Your task to perform on an android device: see creations saved in the google photos Image 0: 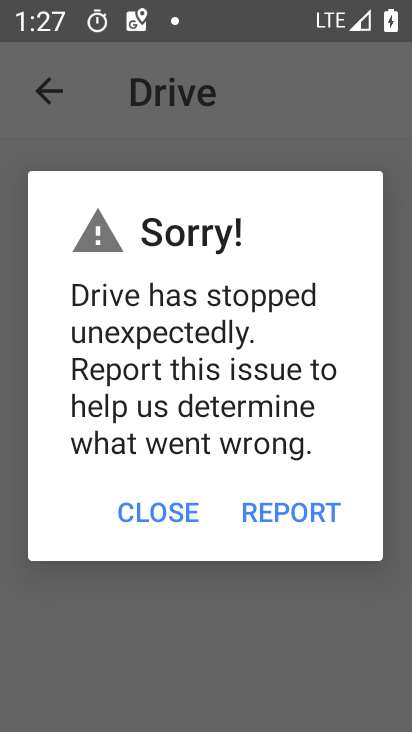
Step 0: press home button
Your task to perform on an android device: see creations saved in the google photos Image 1: 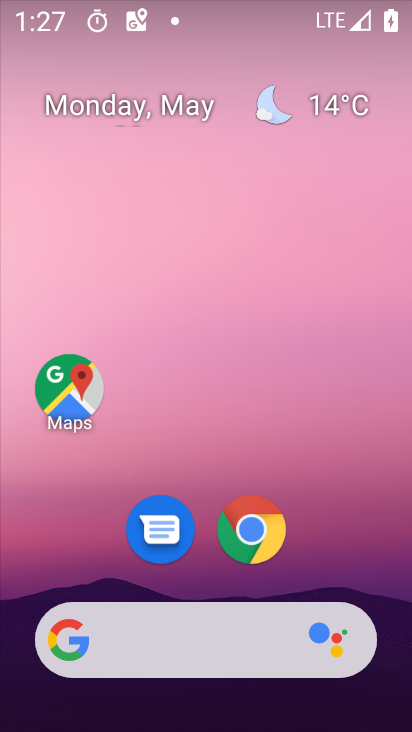
Step 1: drag from (372, 554) to (372, 217)
Your task to perform on an android device: see creations saved in the google photos Image 2: 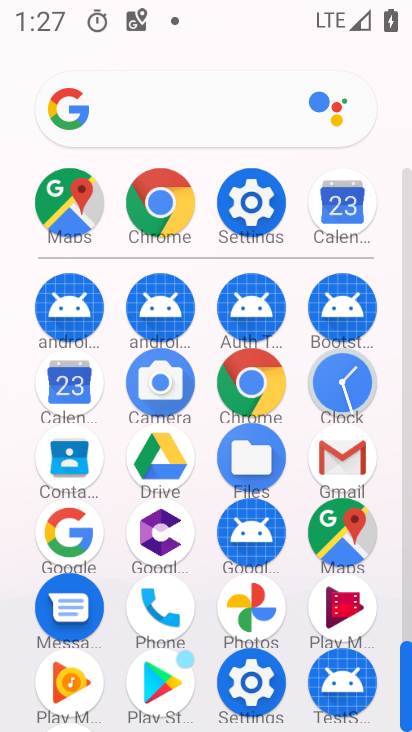
Step 2: click (259, 620)
Your task to perform on an android device: see creations saved in the google photos Image 3: 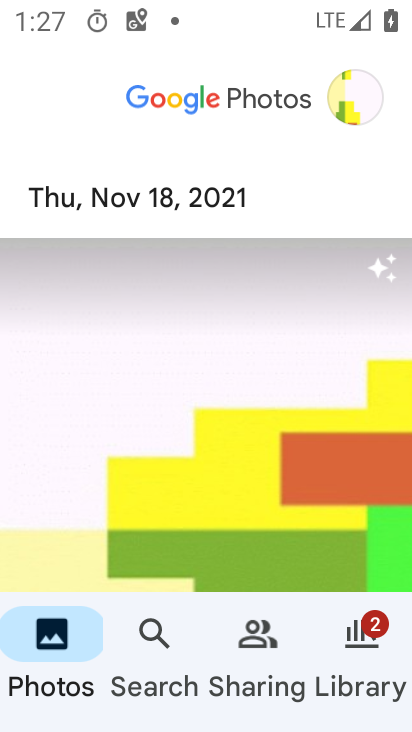
Step 3: click (153, 654)
Your task to perform on an android device: see creations saved in the google photos Image 4: 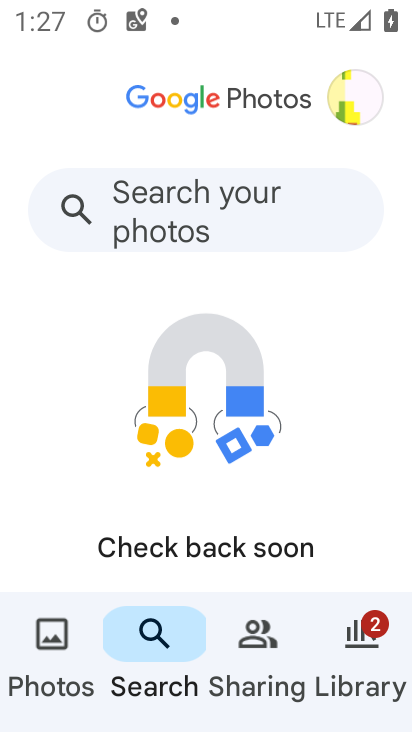
Step 4: drag from (344, 472) to (347, 323)
Your task to perform on an android device: see creations saved in the google photos Image 5: 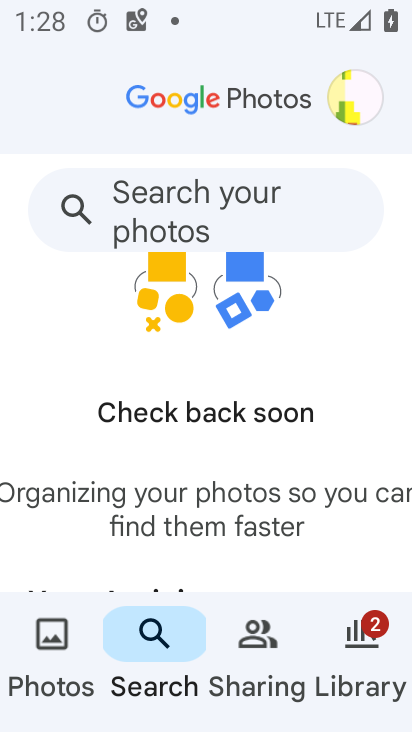
Step 5: drag from (314, 523) to (318, 347)
Your task to perform on an android device: see creations saved in the google photos Image 6: 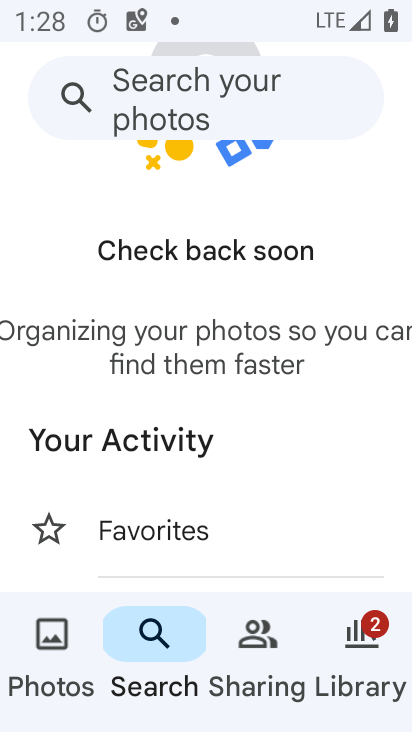
Step 6: drag from (276, 566) to (269, 404)
Your task to perform on an android device: see creations saved in the google photos Image 7: 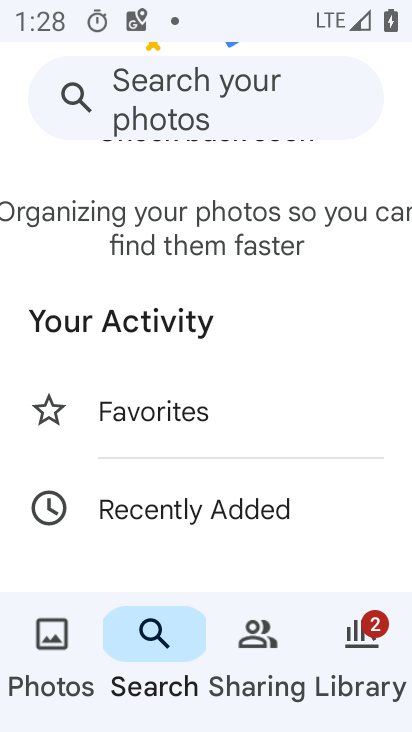
Step 7: drag from (279, 551) to (272, 437)
Your task to perform on an android device: see creations saved in the google photos Image 8: 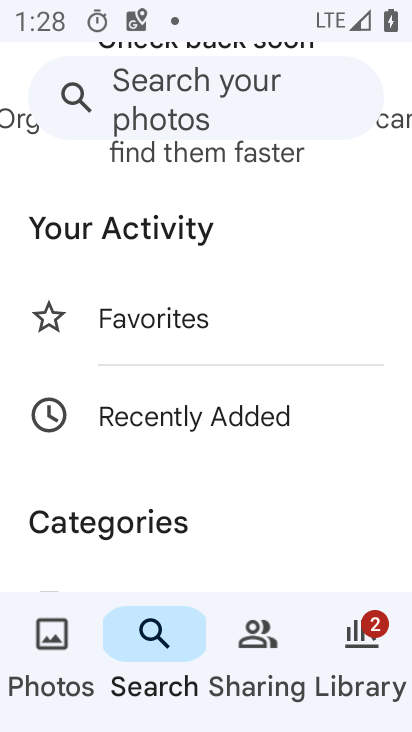
Step 8: drag from (282, 549) to (298, 409)
Your task to perform on an android device: see creations saved in the google photos Image 9: 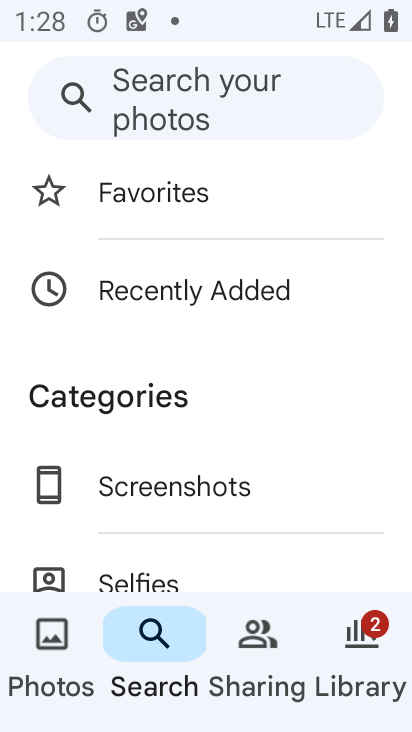
Step 9: drag from (304, 522) to (319, 379)
Your task to perform on an android device: see creations saved in the google photos Image 10: 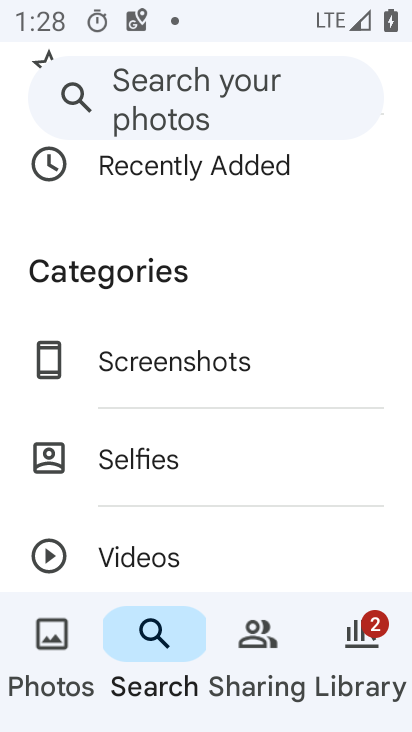
Step 10: drag from (291, 538) to (282, 390)
Your task to perform on an android device: see creations saved in the google photos Image 11: 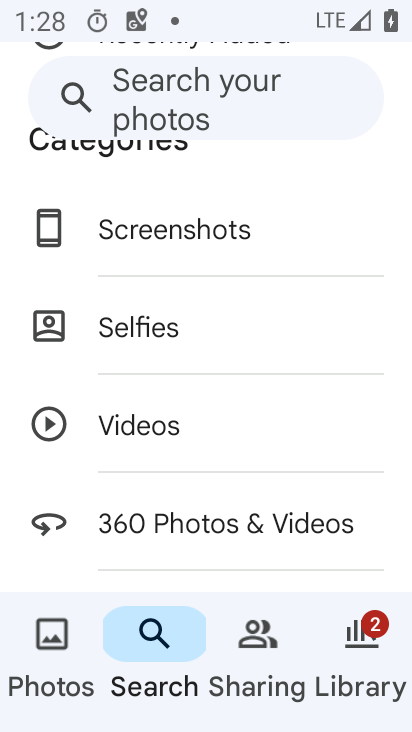
Step 11: drag from (282, 512) to (284, 412)
Your task to perform on an android device: see creations saved in the google photos Image 12: 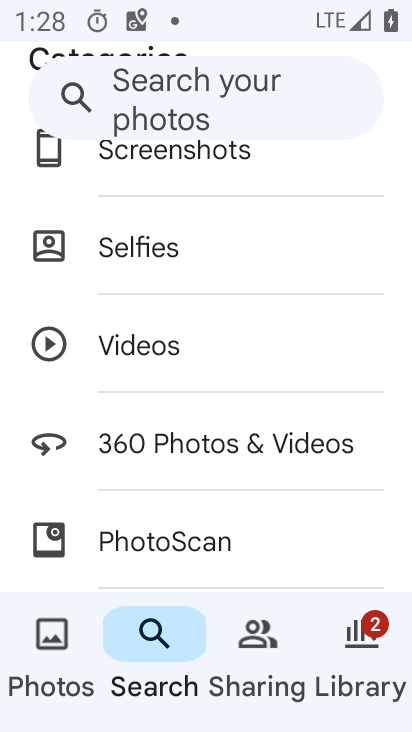
Step 12: drag from (281, 538) to (276, 393)
Your task to perform on an android device: see creations saved in the google photos Image 13: 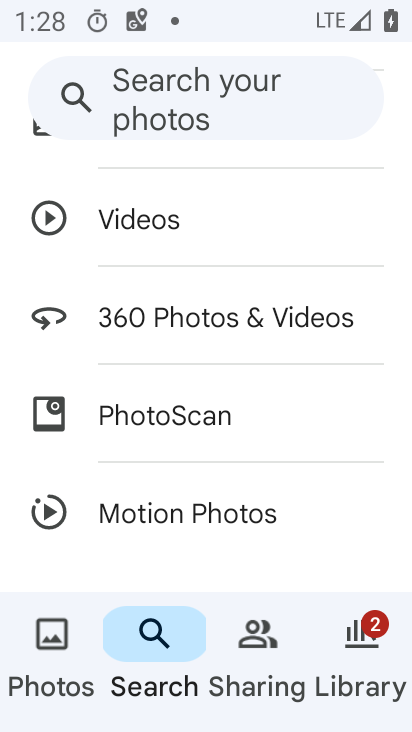
Step 13: drag from (277, 549) to (276, 374)
Your task to perform on an android device: see creations saved in the google photos Image 14: 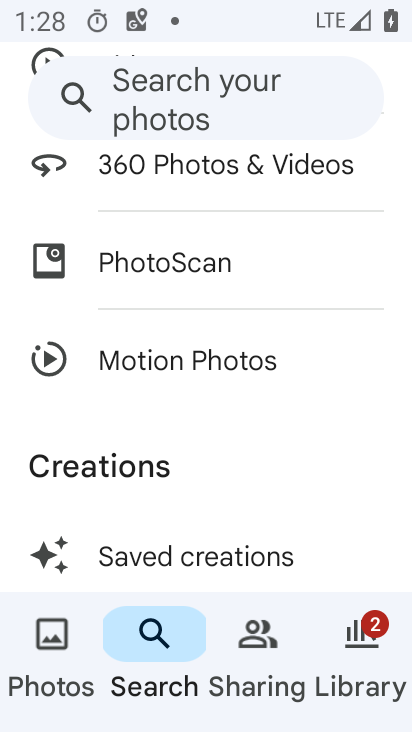
Step 14: click (264, 546)
Your task to perform on an android device: see creations saved in the google photos Image 15: 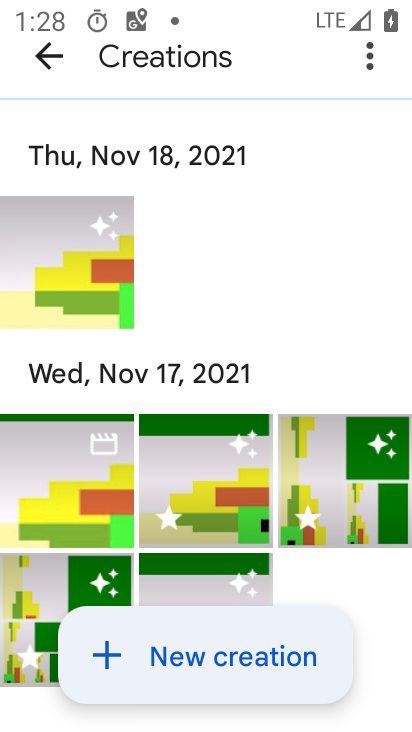
Step 15: task complete